Your task to perform on an android device: turn on airplane mode Image 0: 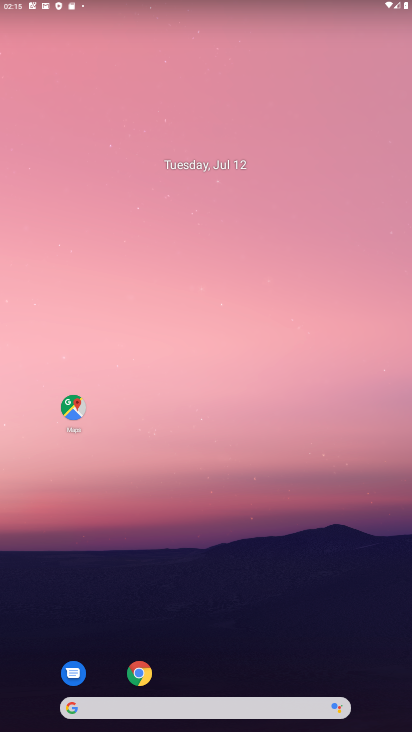
Step 0: drag from (197, 0) to (252, 488)
Your task to perform on an android device: turn on airplane mode Image 1: 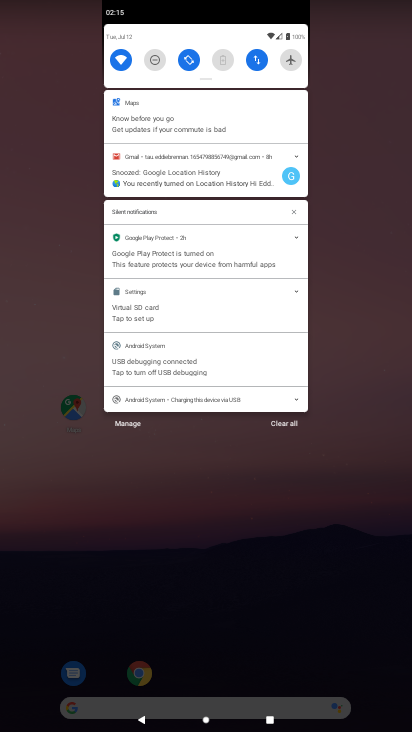
Step 1: click (287, 63)
Your task to perform on an android device: turn on airplane mode Image 2: 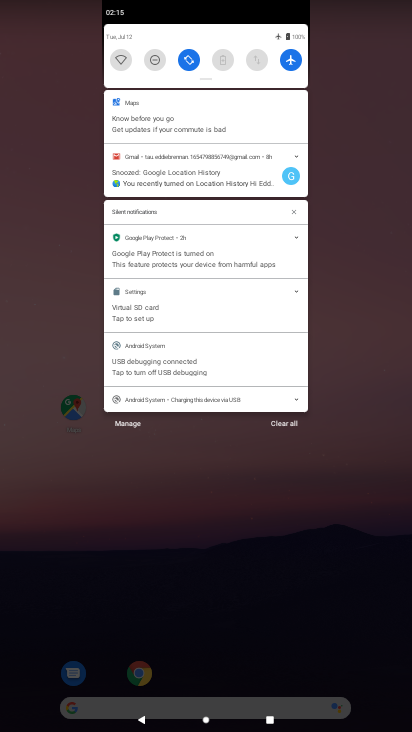
Step 2: task complete